Your task to perform on an android device: Search for "apple airpods" on costco.com, select the first entry, add it to the cart, then select checkout. Image 0: 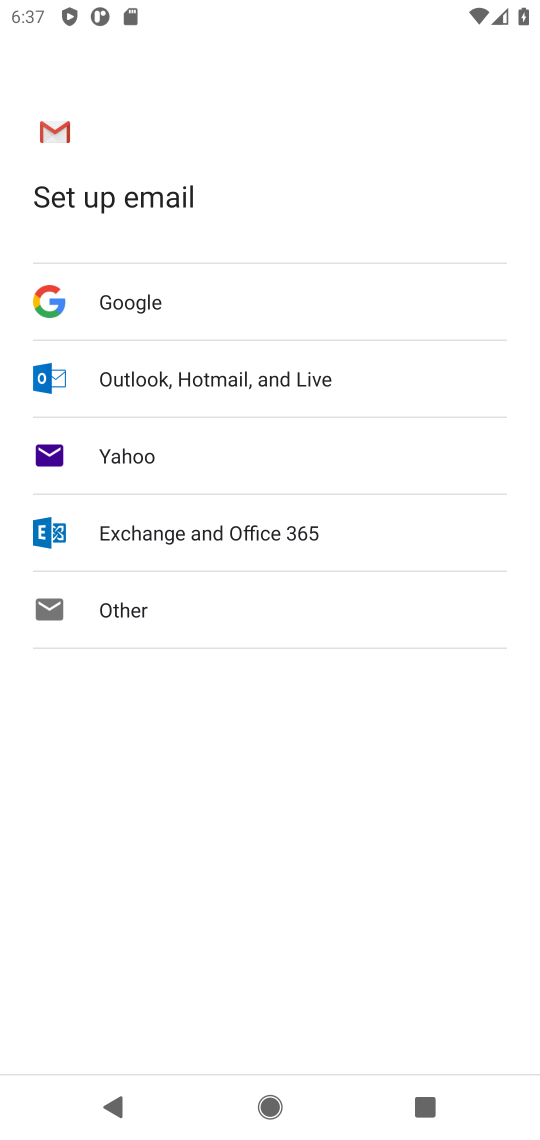
Step 0: press home button
Your task to perform on an android device: Search for "apple airpods" on costco.com, select the first entry, add it to the cart, then select checkout. Image 1: 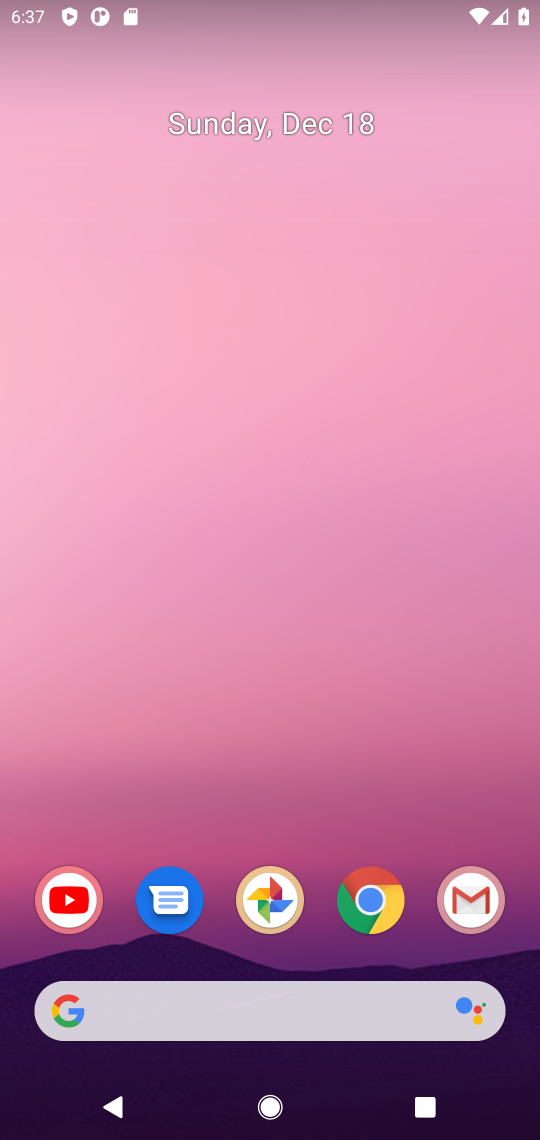
Step 1: click (373, 904)
Your task to perform on an android device: Search for "apple airpods" on costco.com, select the first entry, add it to the cart, then select checkout. Image 2: 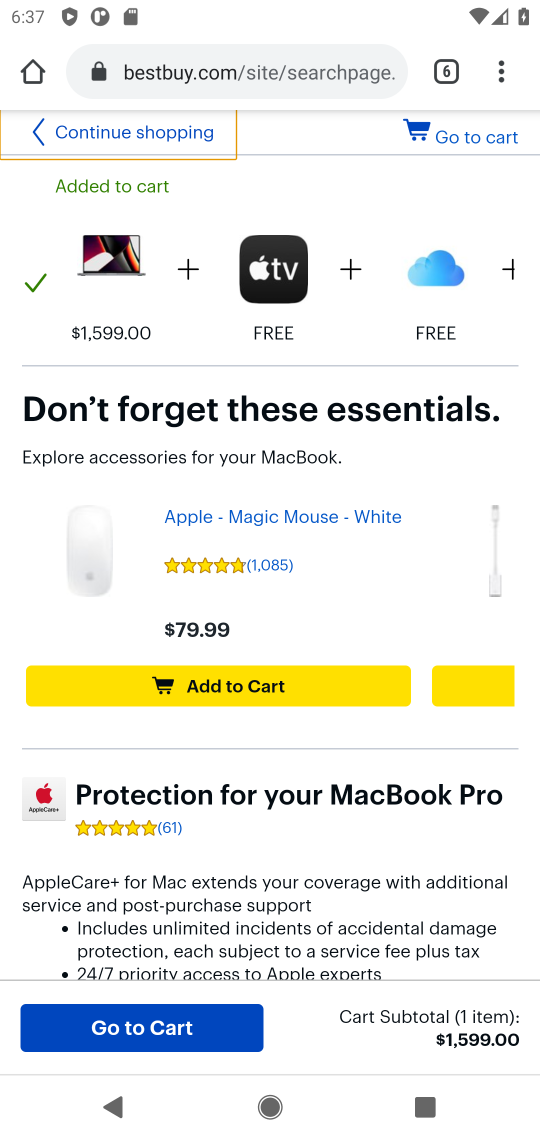
Step 2: click (439, 70)
Your task to perform on an android device: Search for "apple airpods" on costco.com, select the first entry, add it to the cart, then select checkout. Image 3: 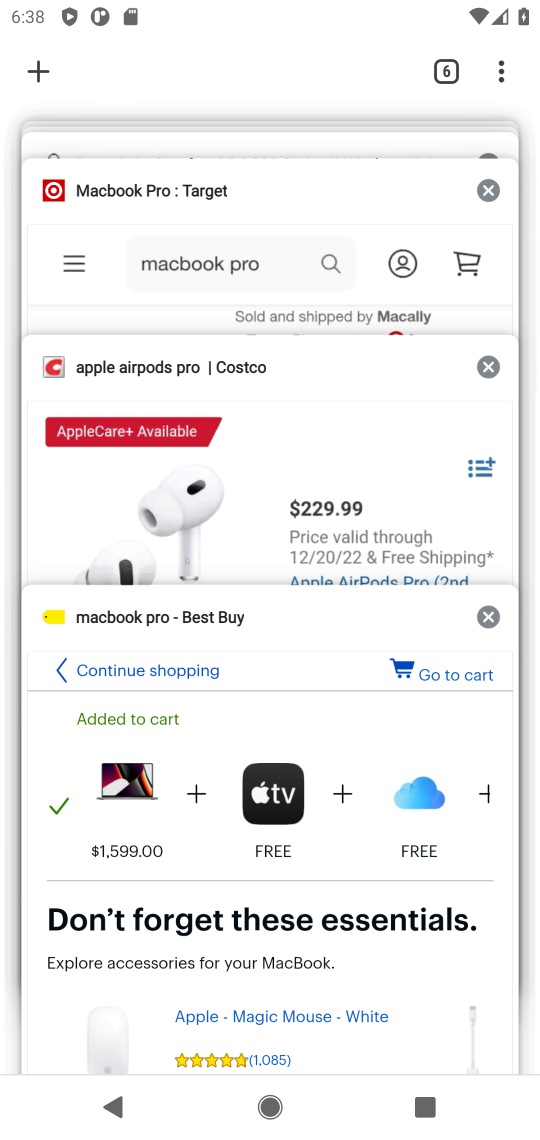
Step 3: click (215, 427)
Your task to perform on an android device: Search for "apple airpods" on costco.com, select the first entry, add it to the cart, then select checkout. Image 4: 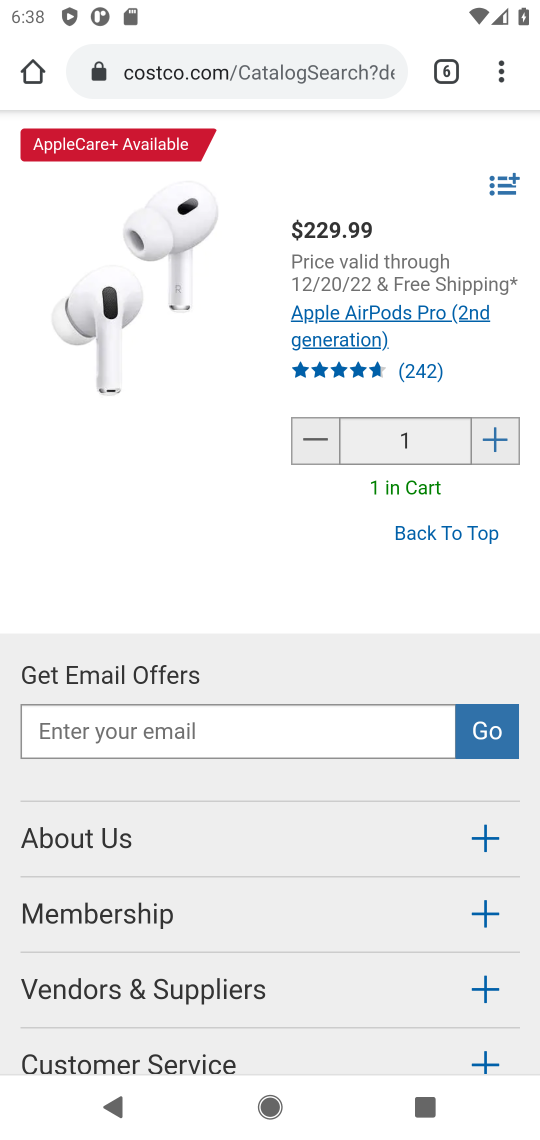
Step 4: click (485, 453)
Your task to perform on an android device: Search for "apple airpods" on costco.com, select the first entry, add it to the cart, then select checkout. Image 5: 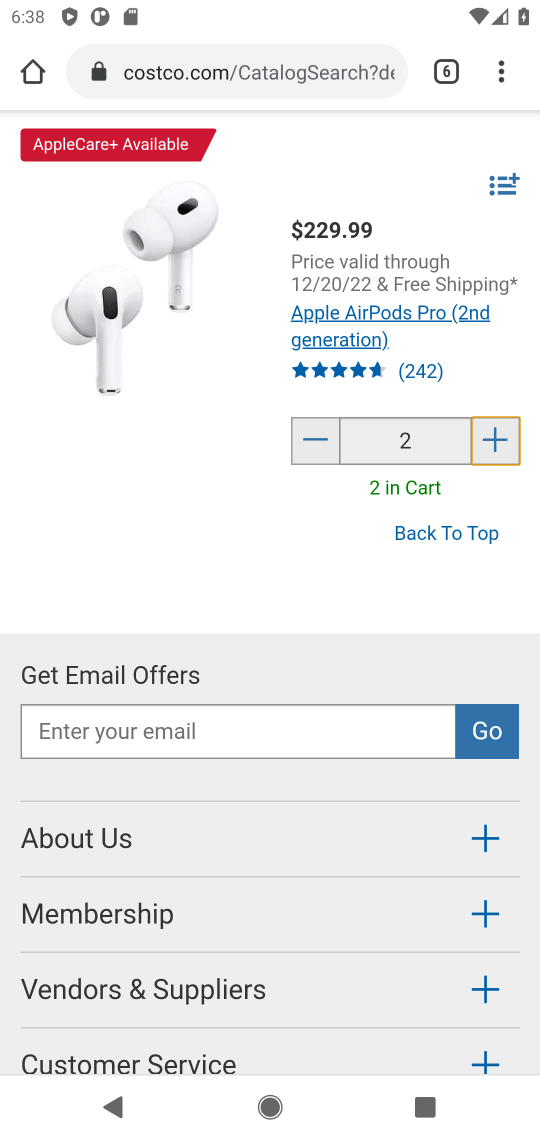
Step 5: task complete